Your task to perform on an android device: Search for the best rated headphones on Amazon. Image 0: 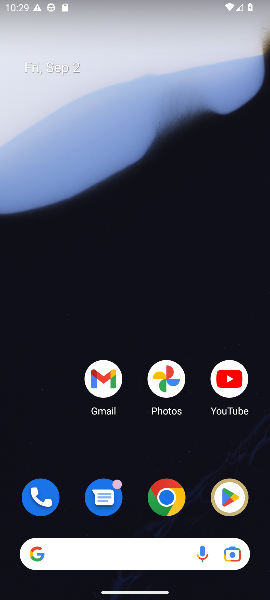
Step 0: click (179, 497)
Your task to perform on an android device: Search for the best rated headphones on Amazon. Image 1: 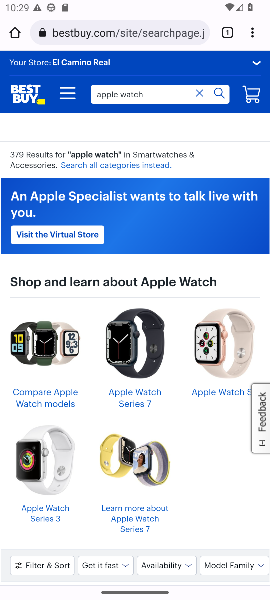
Step 1: click (111, 36)
Your task to perform on an android device: Search for the best rated headphones on Amazon. Image 2: 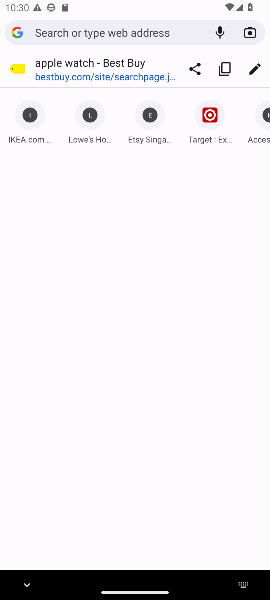
Step 2: type "best rated headphones on Amazon"
Your task to perform on an android device: Search for the best rated headphones on Amazon. Image 3: 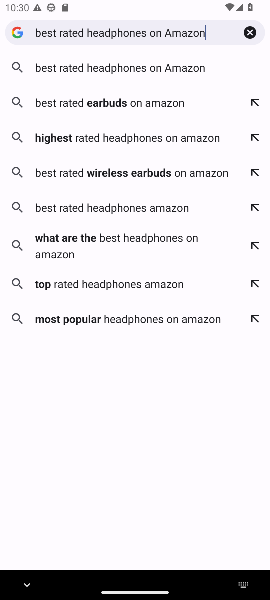
Step 3: click (107, 73)
Your task to perform on an android device: Search for the best rated headphones on Amazon. Image 4: 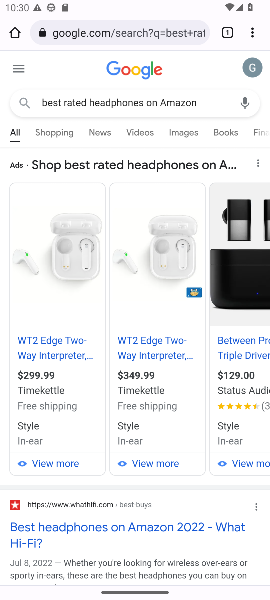
Step 4: drag from (151, 532) to (127, 230)
Your task to perform on an android device: Search for the best rated headphones on Amazon. Image 5: 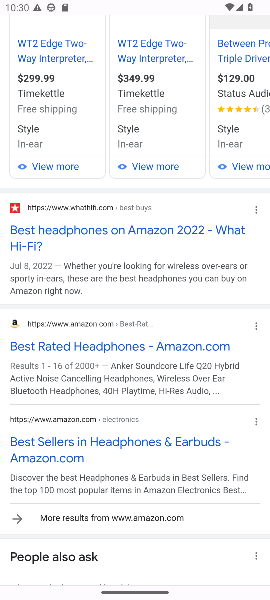
Step 5: click (88, 348)
Your task to perform on an android device: Search for the best rated headphones on Amazon. Image 6: 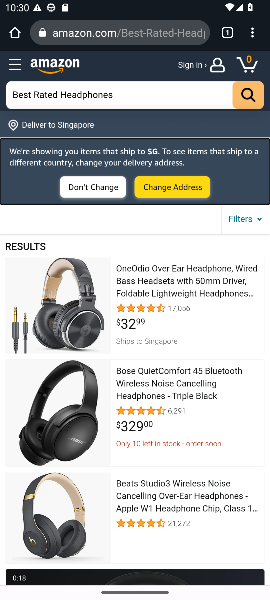
Step 6: task complete